Your task to perform on an android device: What is the recent news? Image 0: 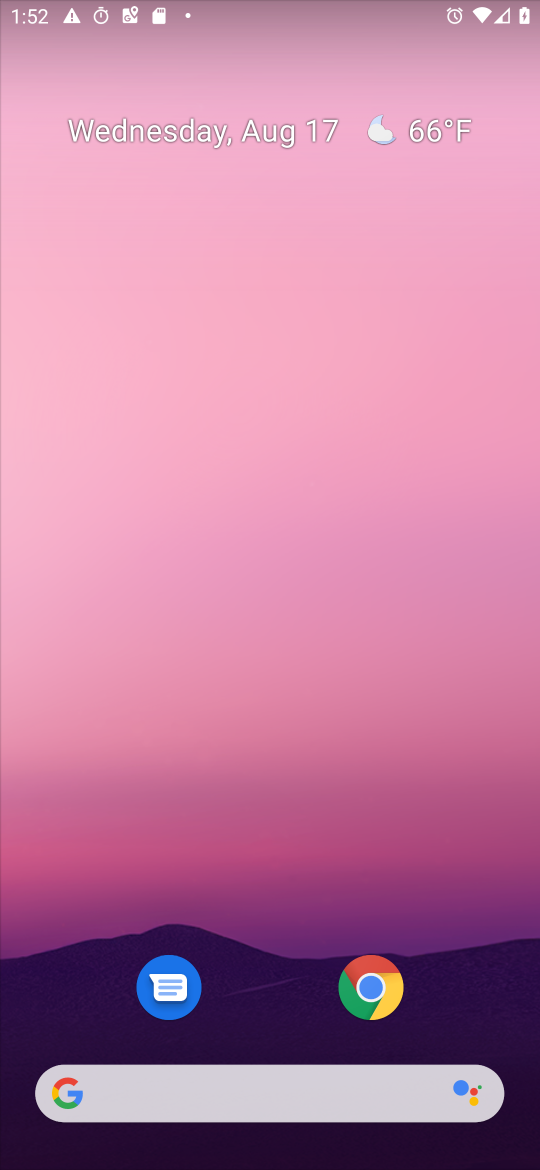
Step 0: click (146, 1080)
Your task to perform on an android device: What is the recent news? Image 1: 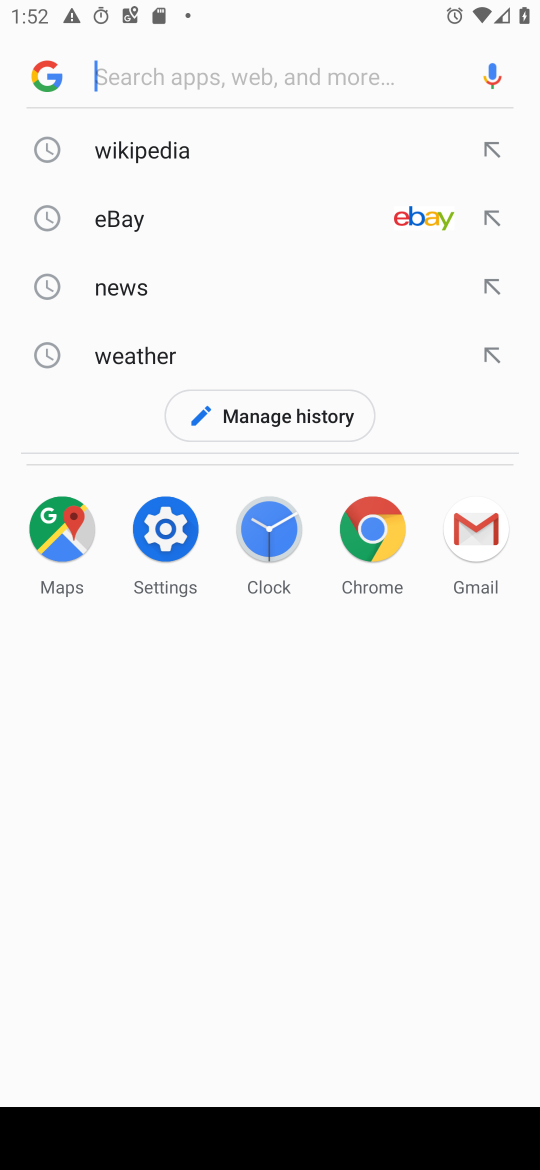
Step 1: type "What is the recent news?"
Your task to perform on an android device: What is the recent news? Image 2: 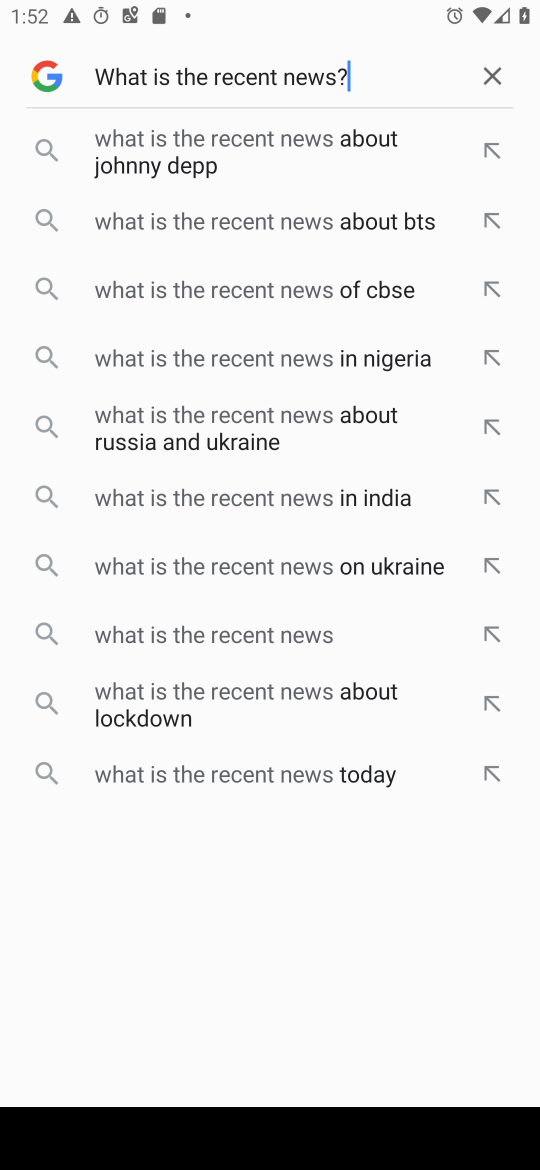
Step 2: type ""
Your task to perform on an android device: What is the recent news? Image 3: 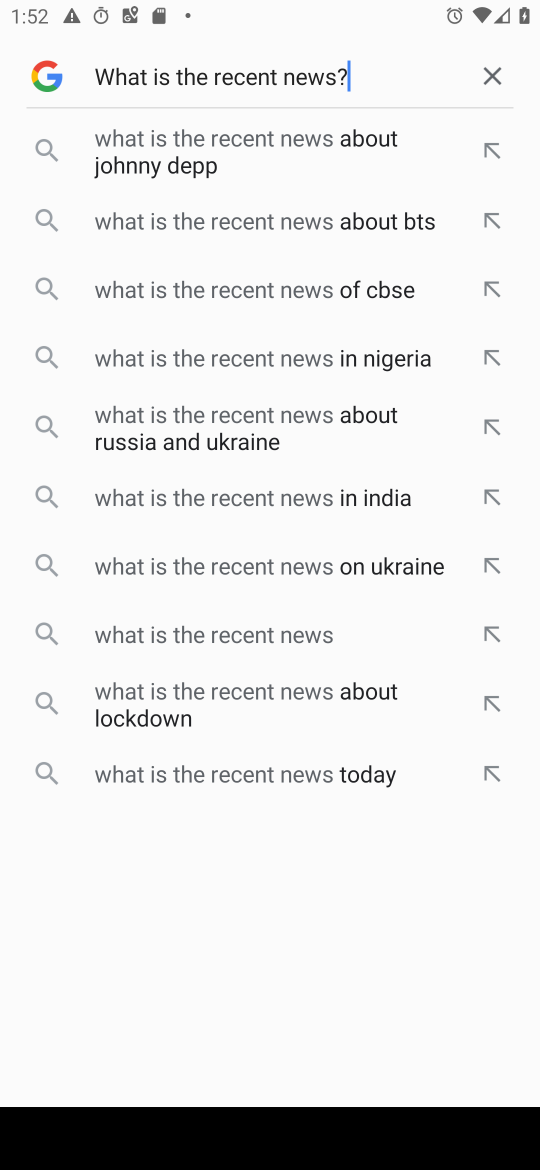
Step 3: type ""
Your task to perform on an android device: What is the recent news? Image 4: 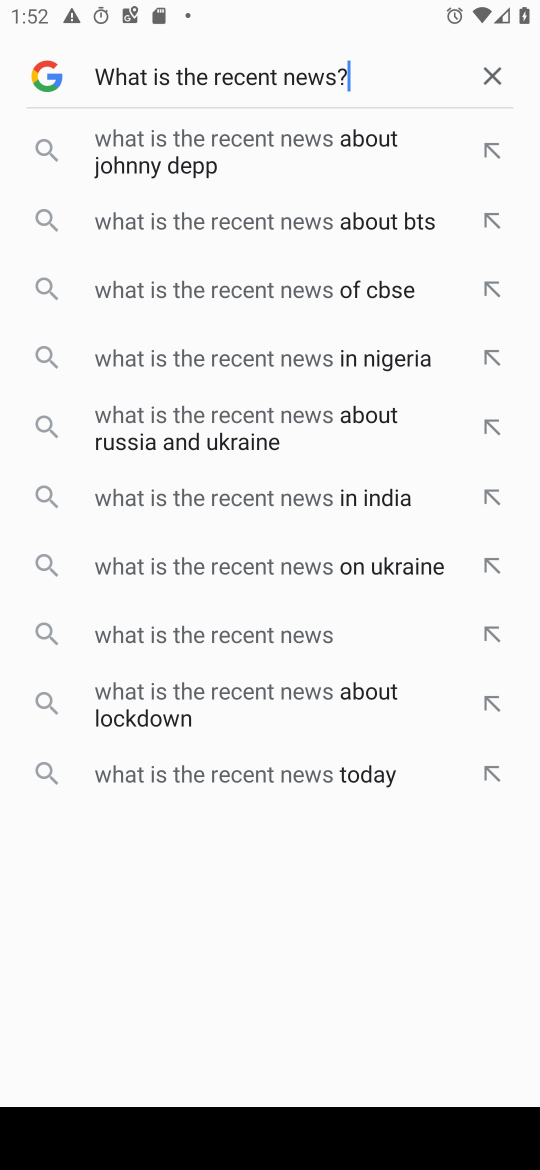
Step 4: task complete